Your task to perform on an android device: turn off smart reply in the gmail app Image 0: 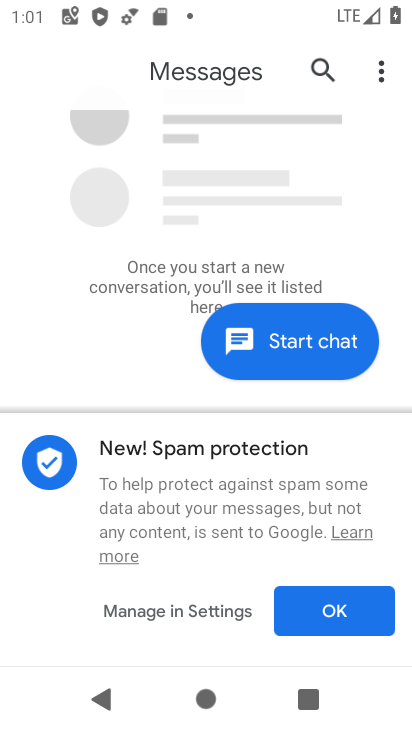
Step 0: press home button
Your task to perform on an android device: turn off smart reply in the gmail app Image 1: 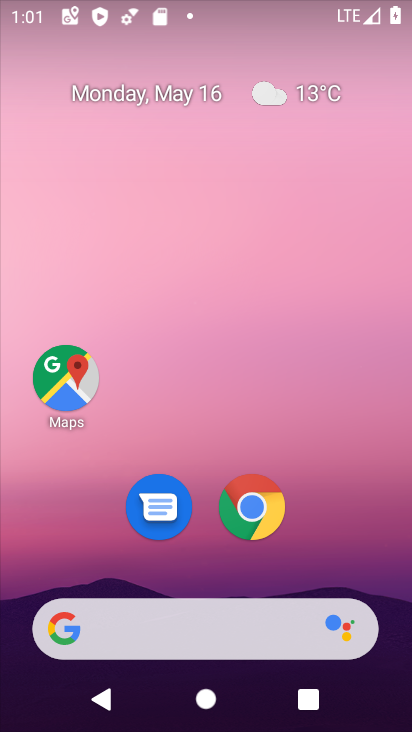
Step 1: drag from (346, 530) to (257, 144)
Your task to perform on an android device: turn off smart reply in the gmail app Image 2: 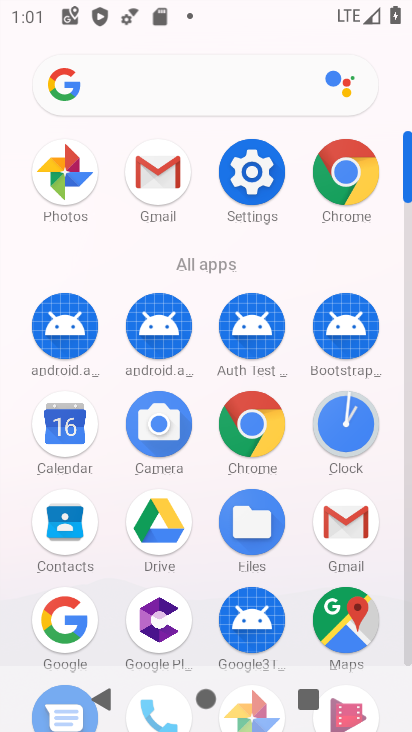
Step 2: click (261, 174)
Your task to perform on an android device: turn off smart reply in the gmail app Image 3: 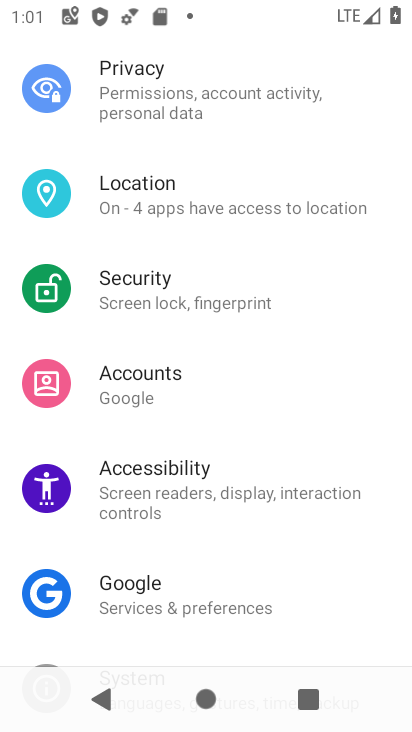
Step 3: press home button
Your task to perform on an android device: turn off smart reply in the gmail app Image 4: 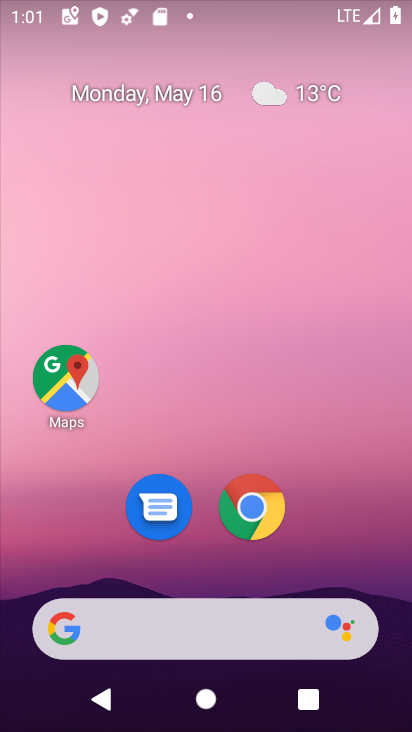
Step 4: drag from (299, 556) to (261, 73)
Your task to perform on an android device: turn off smart reply in the gmail app Image 5: 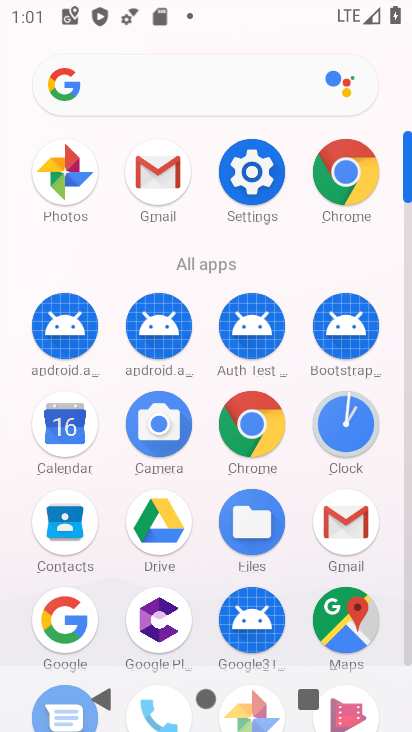
Step 5: click (162, 166)
Your task to perform on an android device: turn off smart reply in the gmail app Image 6: 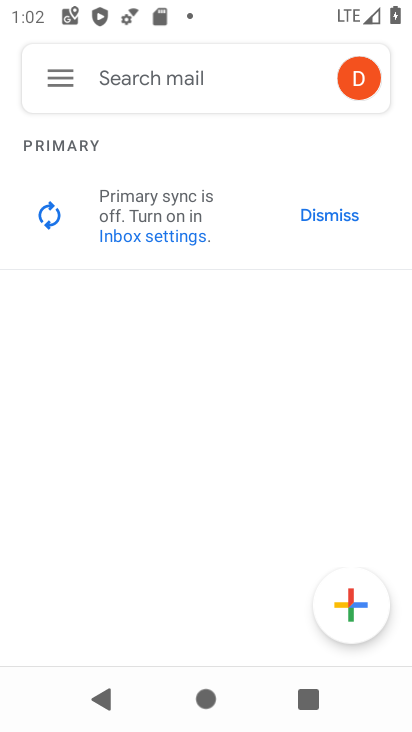
Step 6: click (63, 76)
Your task to perform on an android device: turn off smart reply in the gmail app Image 7: 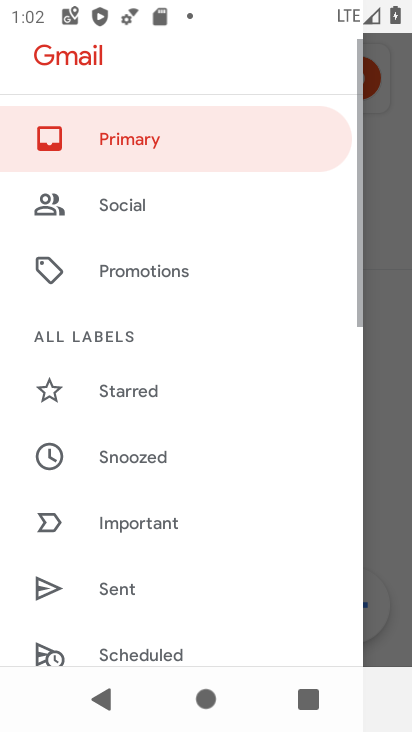
Step 7: drag from (194, 605) to (195, 146)
Your task to perform on an android device: turn off smart reply in the gmail app Image 8: 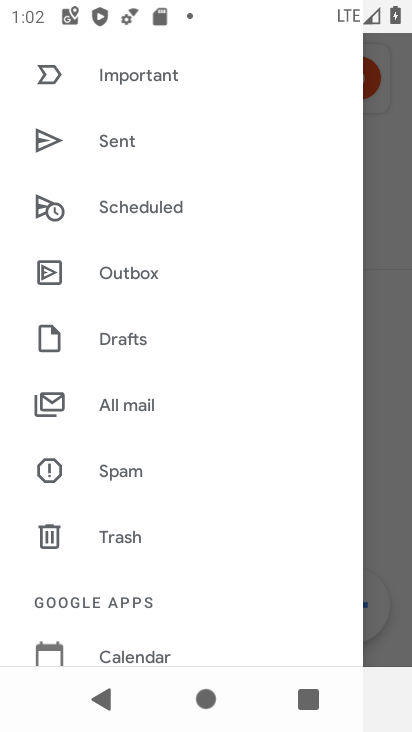
Step 8: drag from (186, 537) to (153, 224)
Your task to perform on an android device: turn off smart reply in the gmail app Image 9: 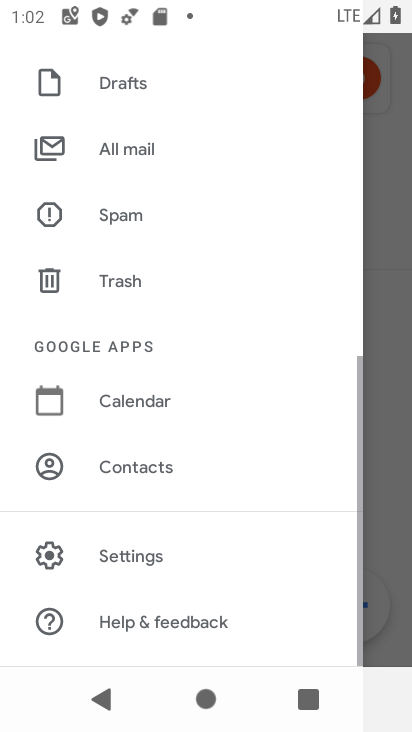
Step 9: click (150, 572)
Your task to perform on an android device: turn off smart reply in the gmail app Image 10: 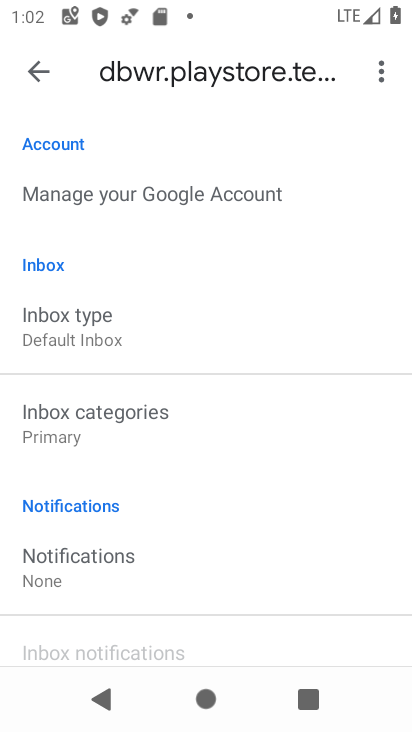
Step 10: drag from (207, 522) to (210, 71)
Your task to perform on an android device: turn off smart reply in the gmail app Image 11: 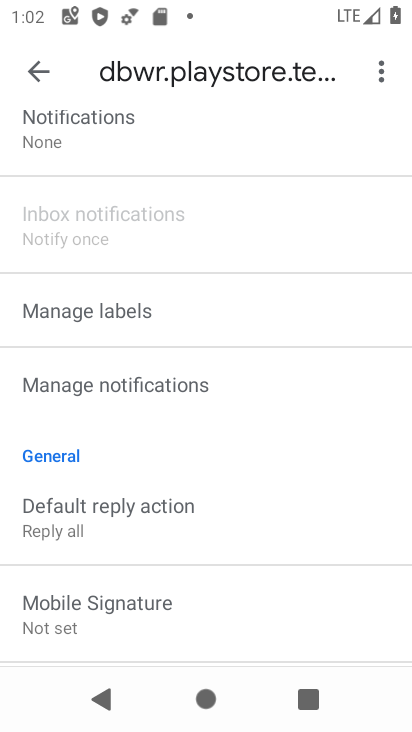
Step 11: drag from (160, 414) to (170, 228)
Your task to perform on an android device: turn off smart reply in the gmail app Image 12: 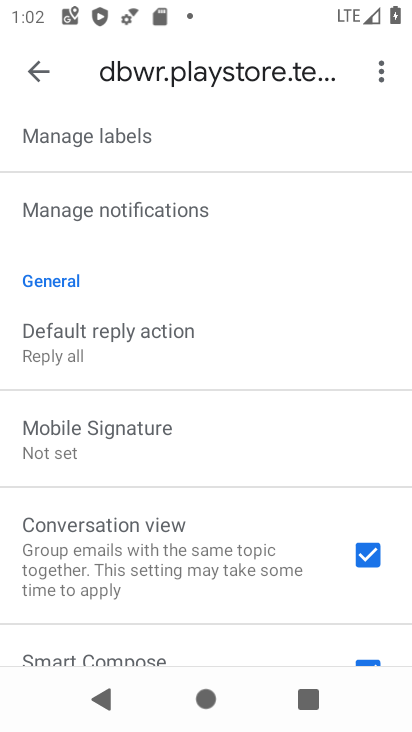
Step 12: drag from (178, 496) to (186, 243)
Your task to perform on an android device: turn off smart reply in the gmail app Image 13: 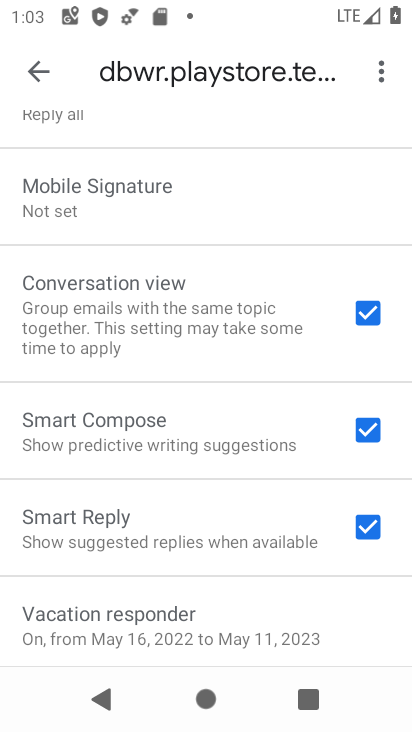
Step 13: click (374, 528)
Your task to perform on an android device: turn off smart reply in the gmail app Image 14: 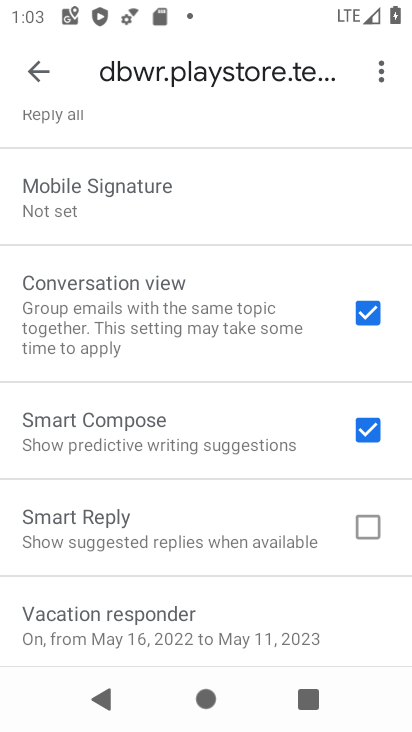
Step 14: task complete